Your task to perform on an android device: turn on bluetooth scan Image 0: 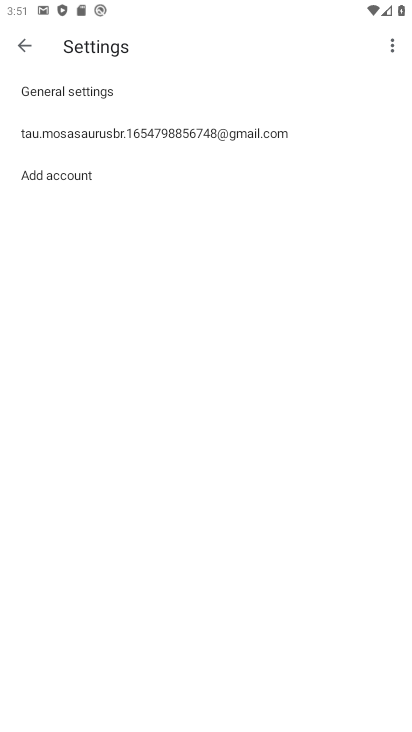
Step 0: press home button
Your task to perform on an android device: turn on bluetooth scan Image 1: 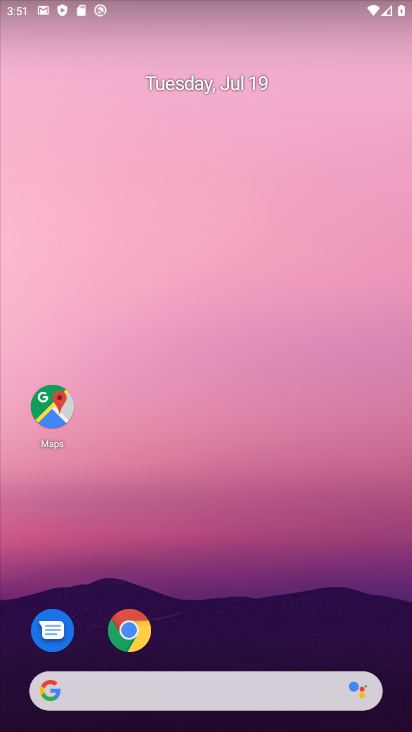
Step 1: drag from (362, 635) to (352, 167)
Your task to perform on an android device: turn on bluetooth scan Image 2: 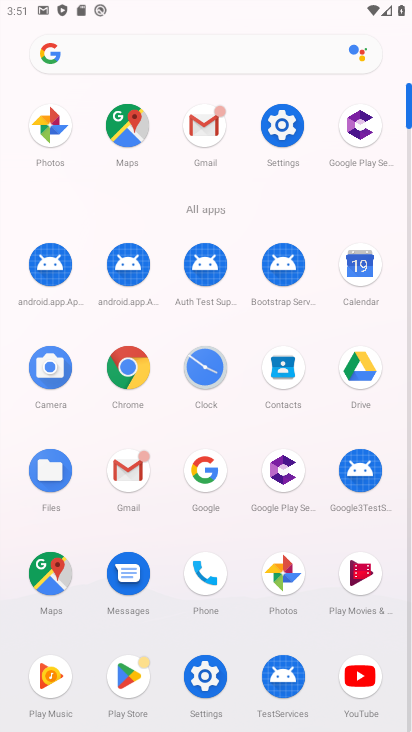
Step 2: click (278, 124)
Your task to perform on an android device: turn on bluetooth scan Image 3: 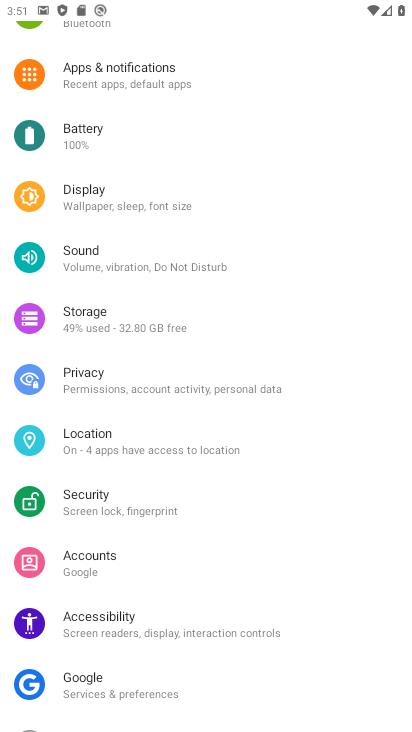
Step 3: drag from (348, 213) to (341, 320)
Your task to perform on an android device: turn on bluetooth scan Image 4: 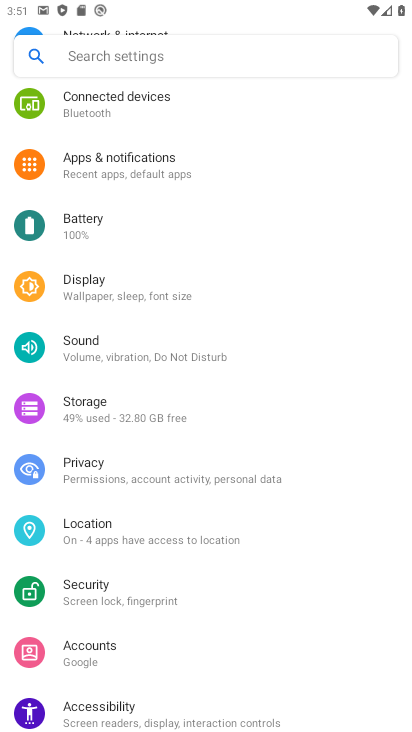
Step 4: click (306, 520)
Your task to perform on an android device: turn on bluetooth scan Image 5: 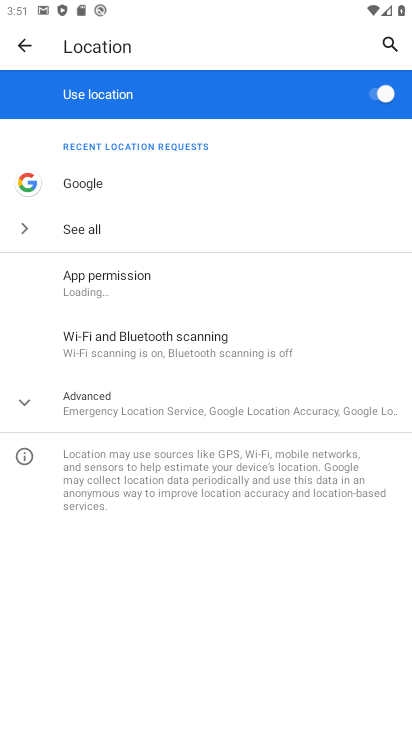
Step 5: click (266, 336)
Your task to perform on an android device: turn on bluetooth scan Image 6: 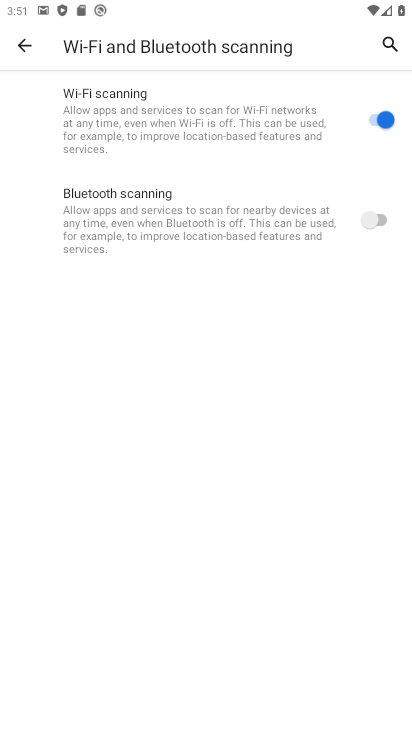
Step 6: click (367, 224)
Your task to perform on an android device: turn on bluetooth scan Image 7: 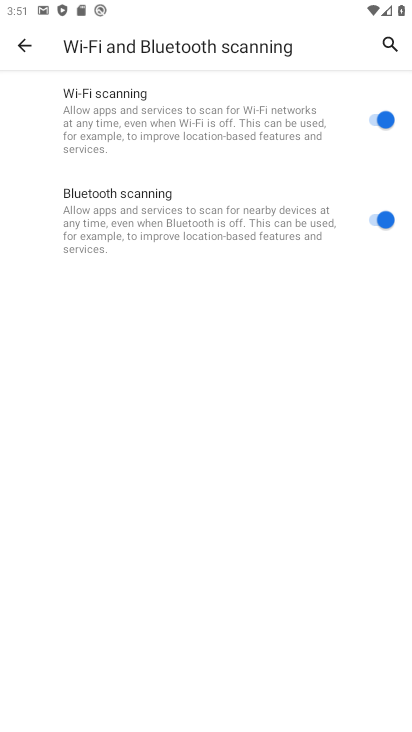
Step 7: task complete